Your task to perform on an android device: turn smart compose on in the gmail app Image 0: 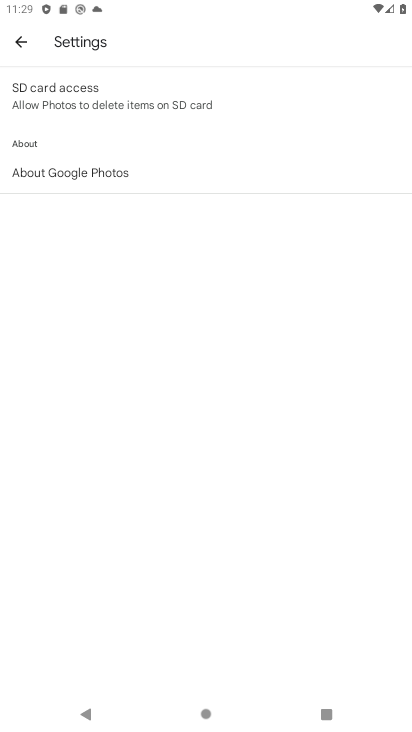
Step 0: press home button
Your task to perform on an android device: turn smart compose on in the gmail app Image 1: 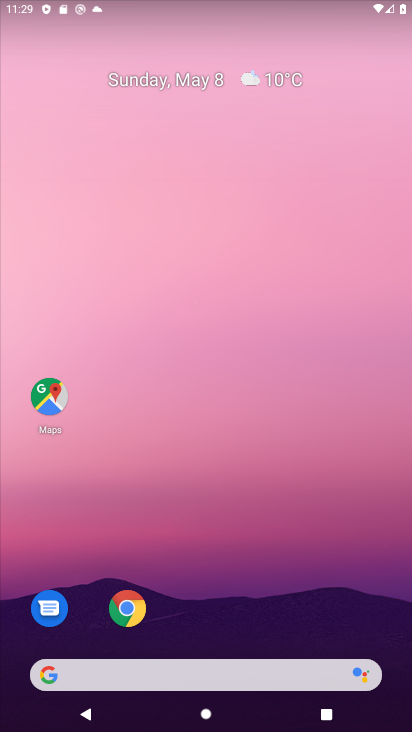
Step 1: drag from (243, 613) to (242, 163)
Your task to perform on an android device: turn smart compose on in the gmail app Image 2: 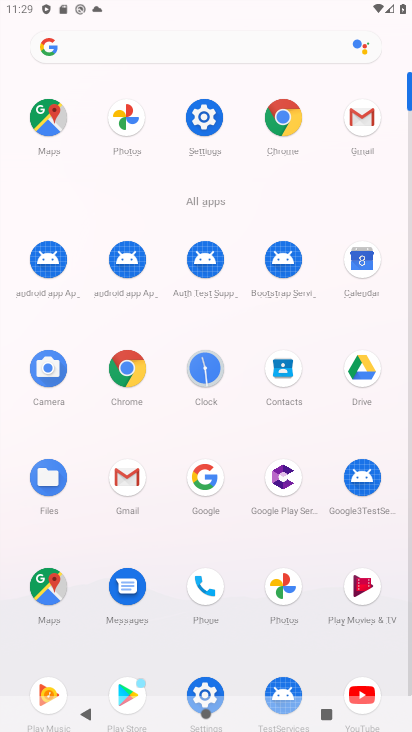
Step 2: click (358, 139)
Your task to perform on an android device: turn smart compose on in the gmail app Image 3: 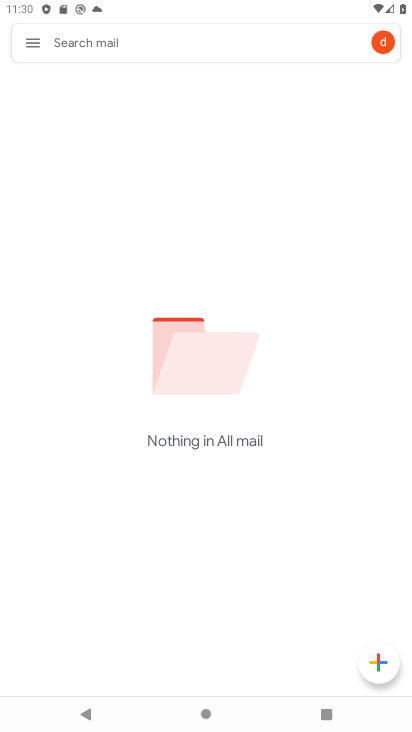
Step 3: click (26, 46)
Your task to perform on an android device: turn smart compose on in the gmail app Image 4: 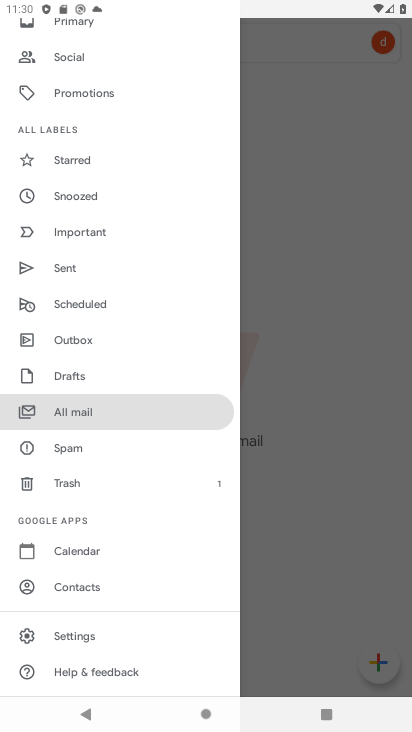
Step 4: click (99, 626)
Your task to perform on an android device: turn smart compose on in the gmail app Image 5: 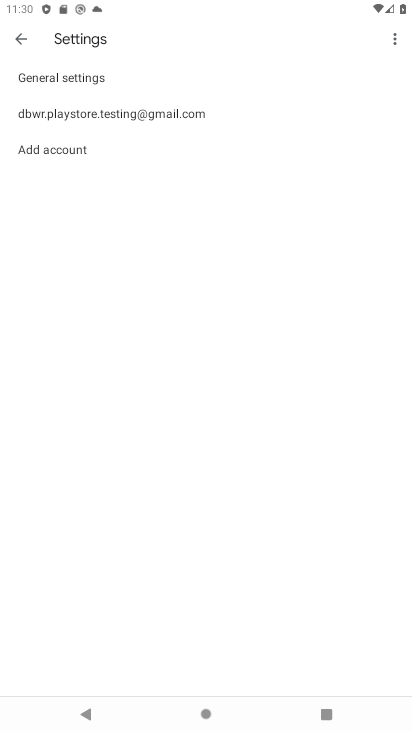
Step 5: click (111, 113)
Your task to perform on an android device: turn smart compose on in the gmail app Image 6: 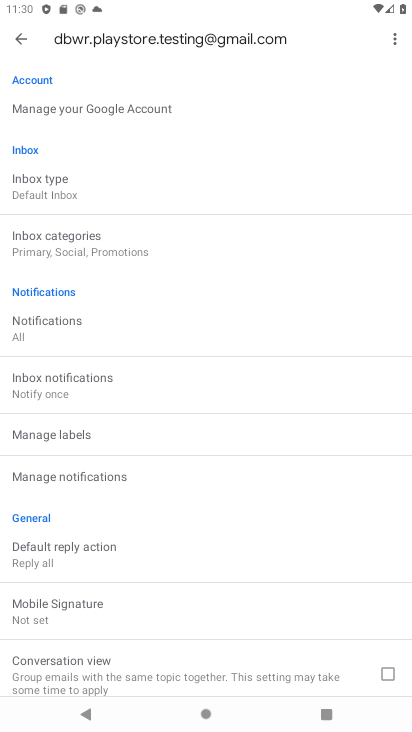
Step 6: drag from (198, 569) to (226, 163)
Your task to perform on an android device: turn smart compose on in the gmail app Image 7: 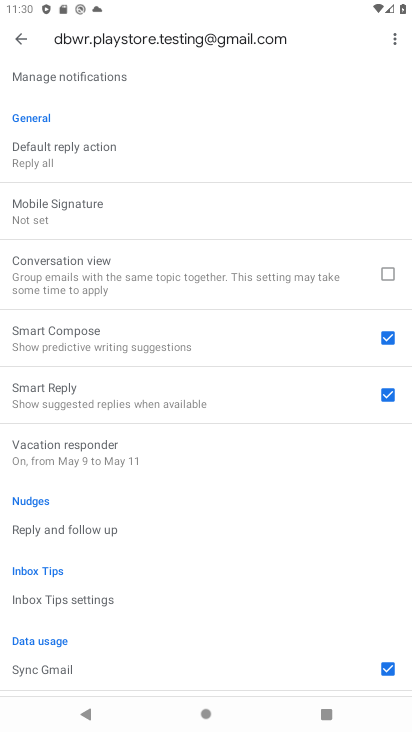
Step 7: click (396, 337)
Your task to perform on an android device: turn smart compose on in the gmail app Image 8: 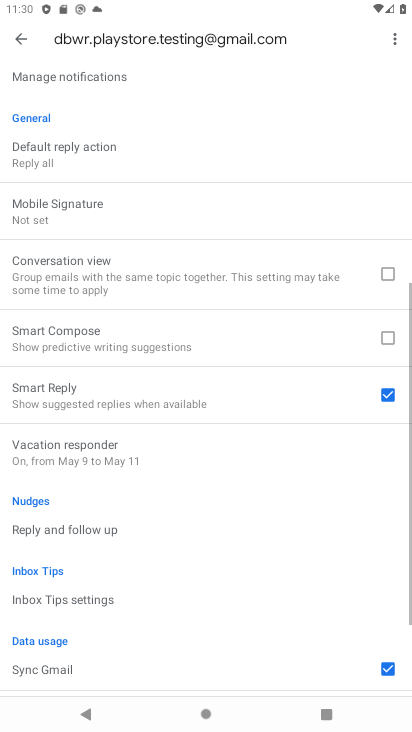
Step 8: task complete